Your task to perform on an android device: open app "Microsoft Excel" (install if not already installed) Image 0: 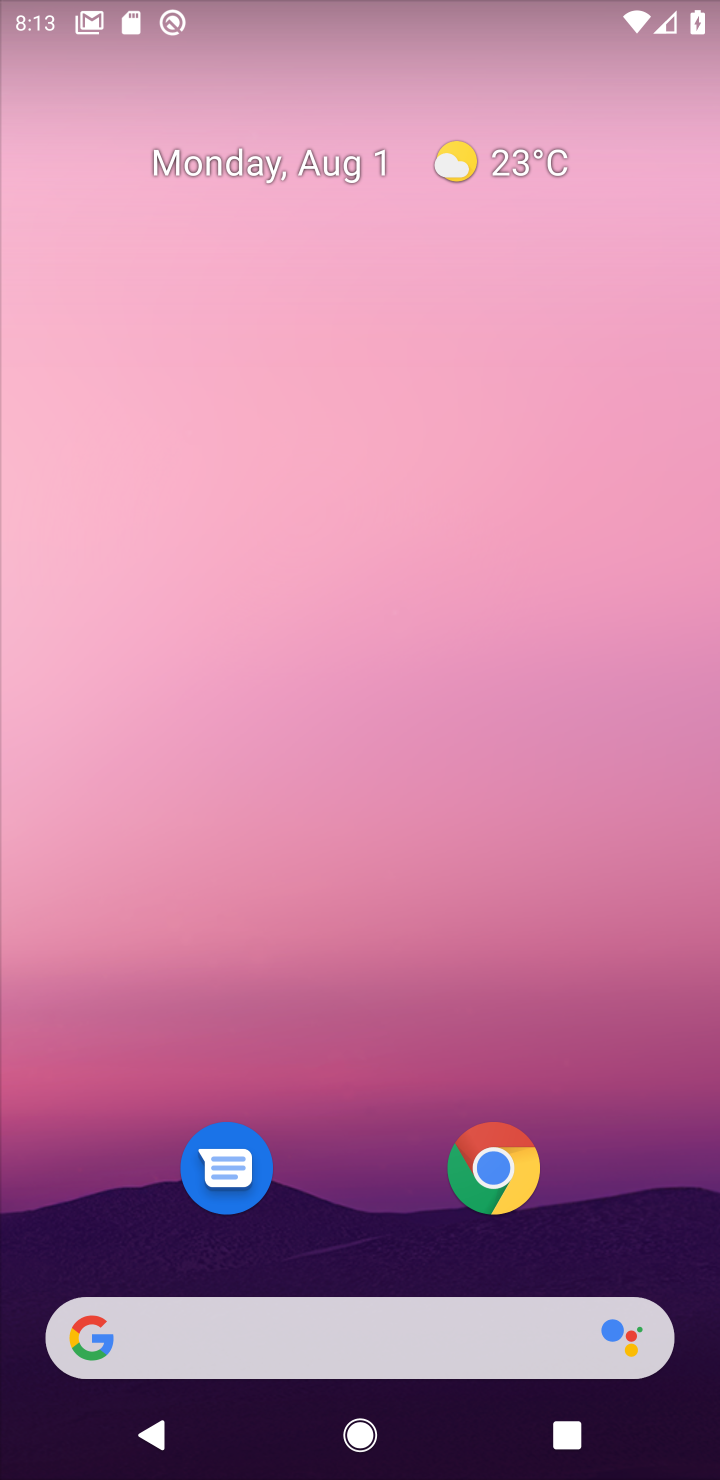
Step 0: drag from (361, 913) to (486, 129)
Your task to perform on an android device: open app "Microsoft Excel" (install if not already installed) Image 1: 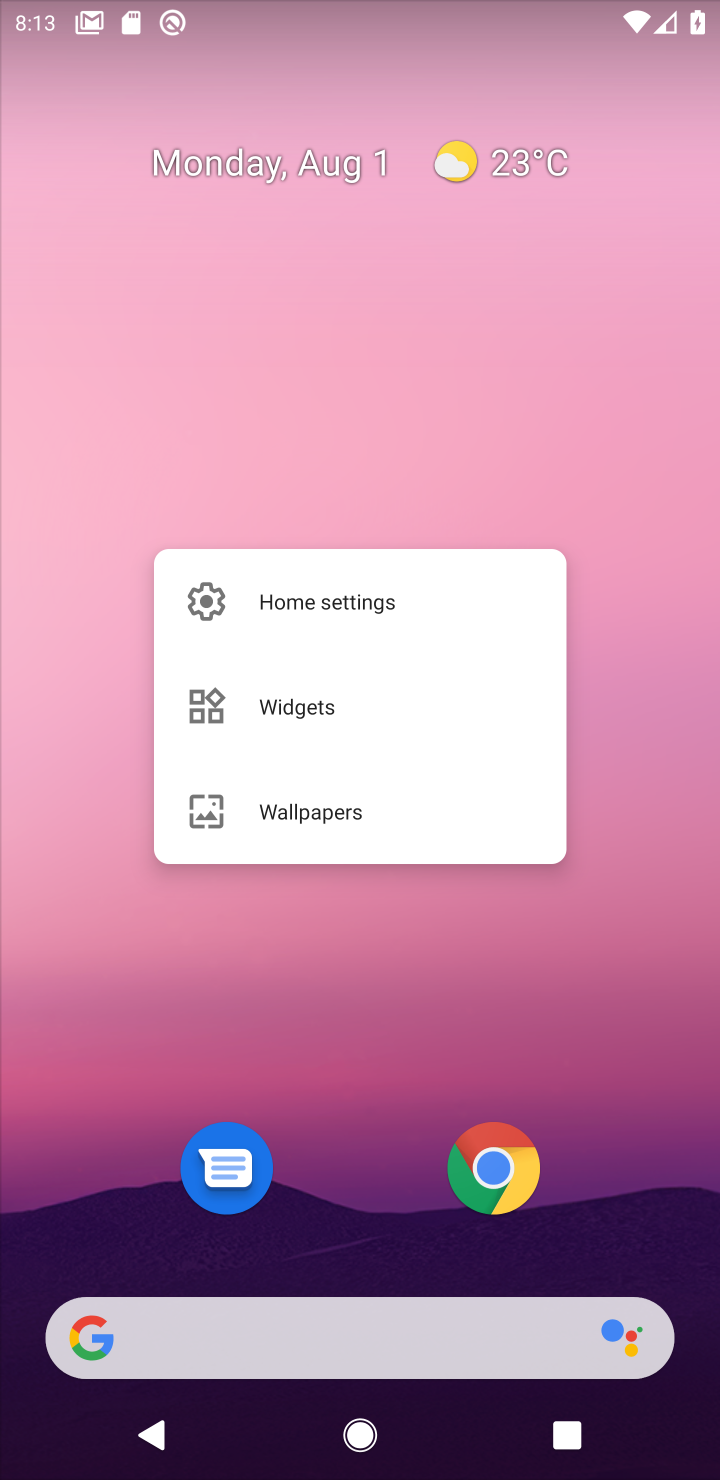
Step 1: drag from (397, 1108) to (679, 827)
Your task to perform on an android device: open app "Microsoft Excel" (install if not already installed) Image 2: 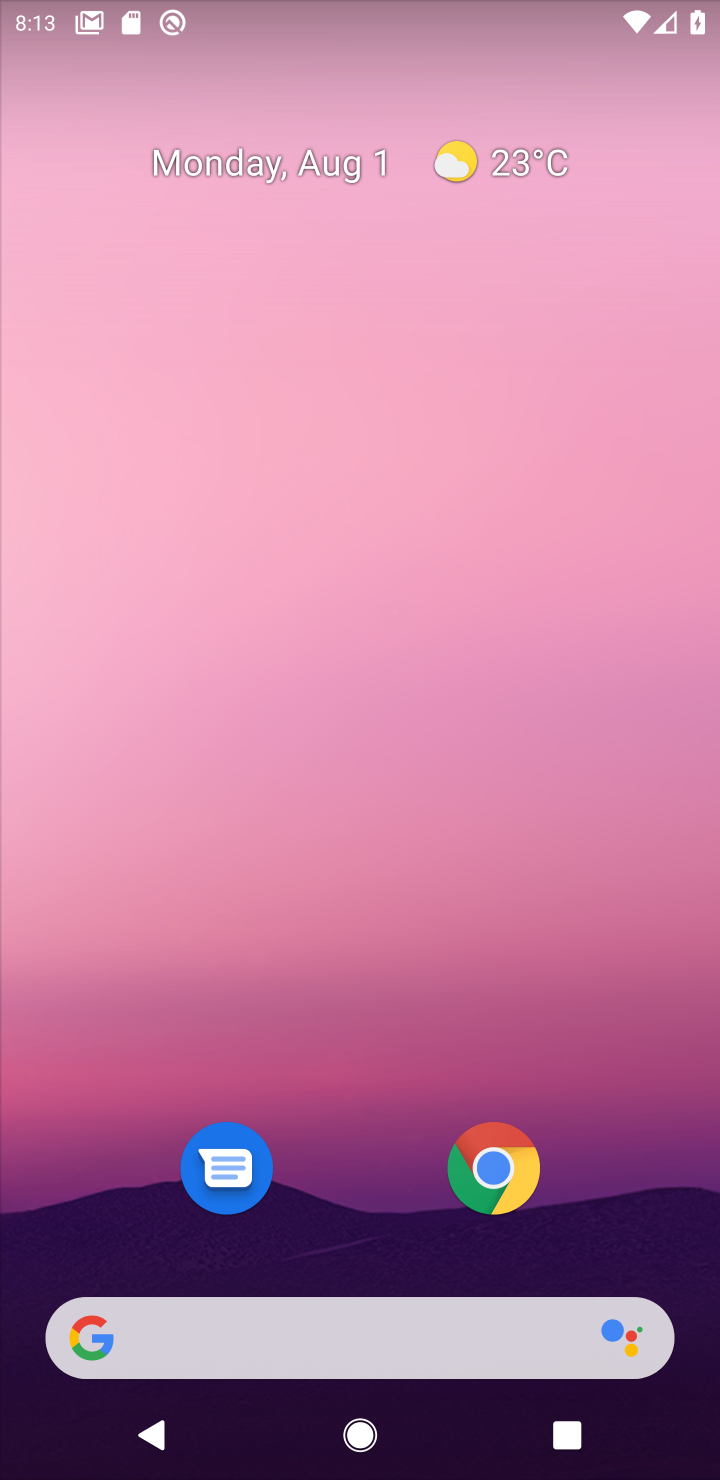
Step 2: drag from (418, 1030) to (436, 189)
Your task to perform on an android device: open app "Microsoft Excel" (install if not already installed) Image 3: 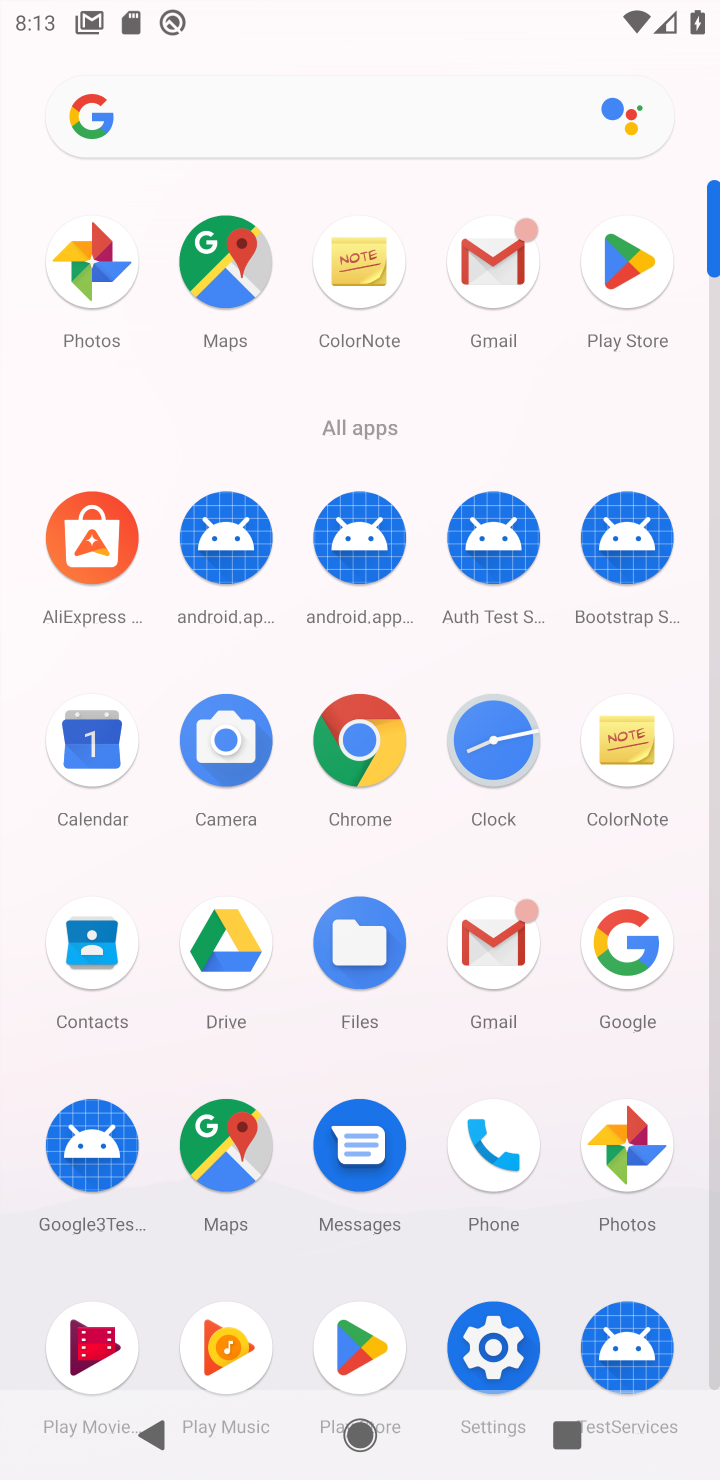
Step 3: click (630, 282)
Your task to perform on an android device: open app "Microsoft Excel" (install if not already installed) Image 4: 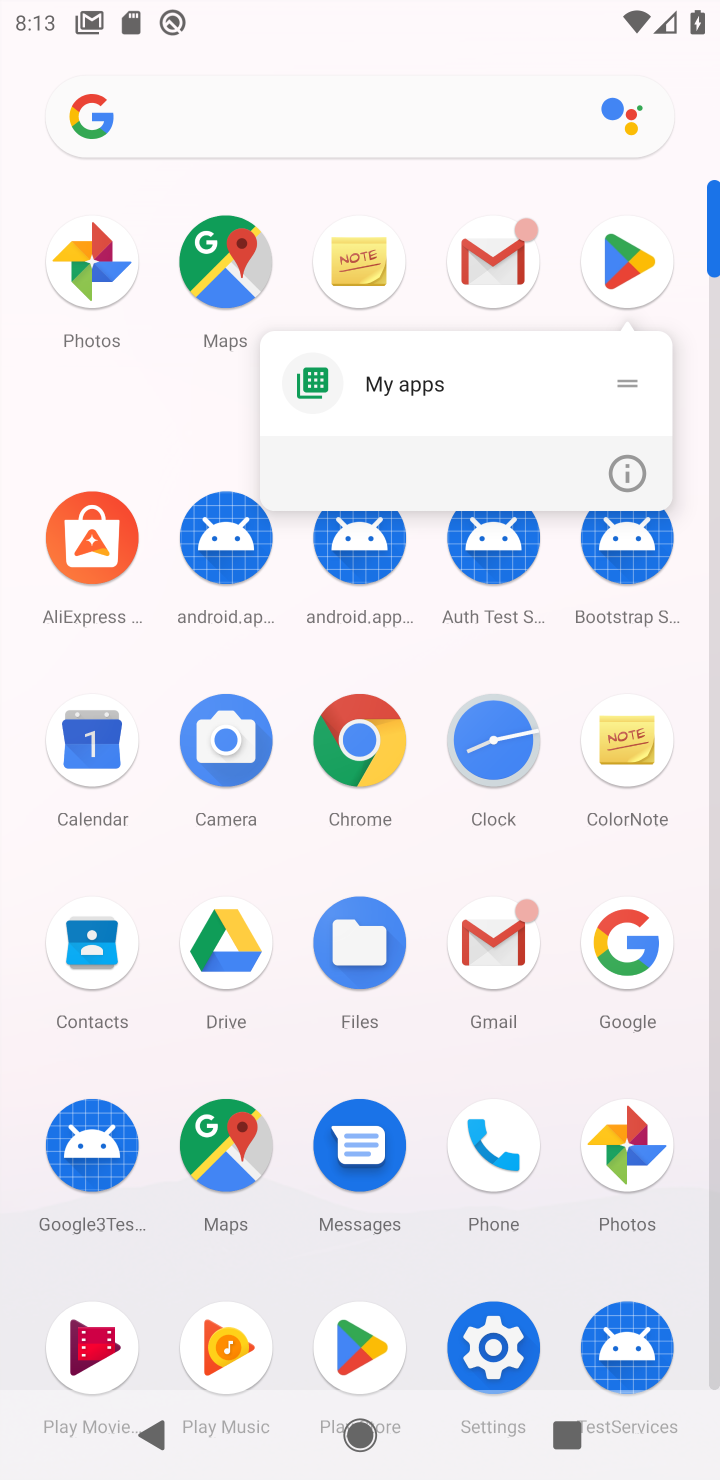
Step 4: click (627, 264)
Your task to perform on an android device: open app "Microsoft Excel" (install if not already installed) Image 5: 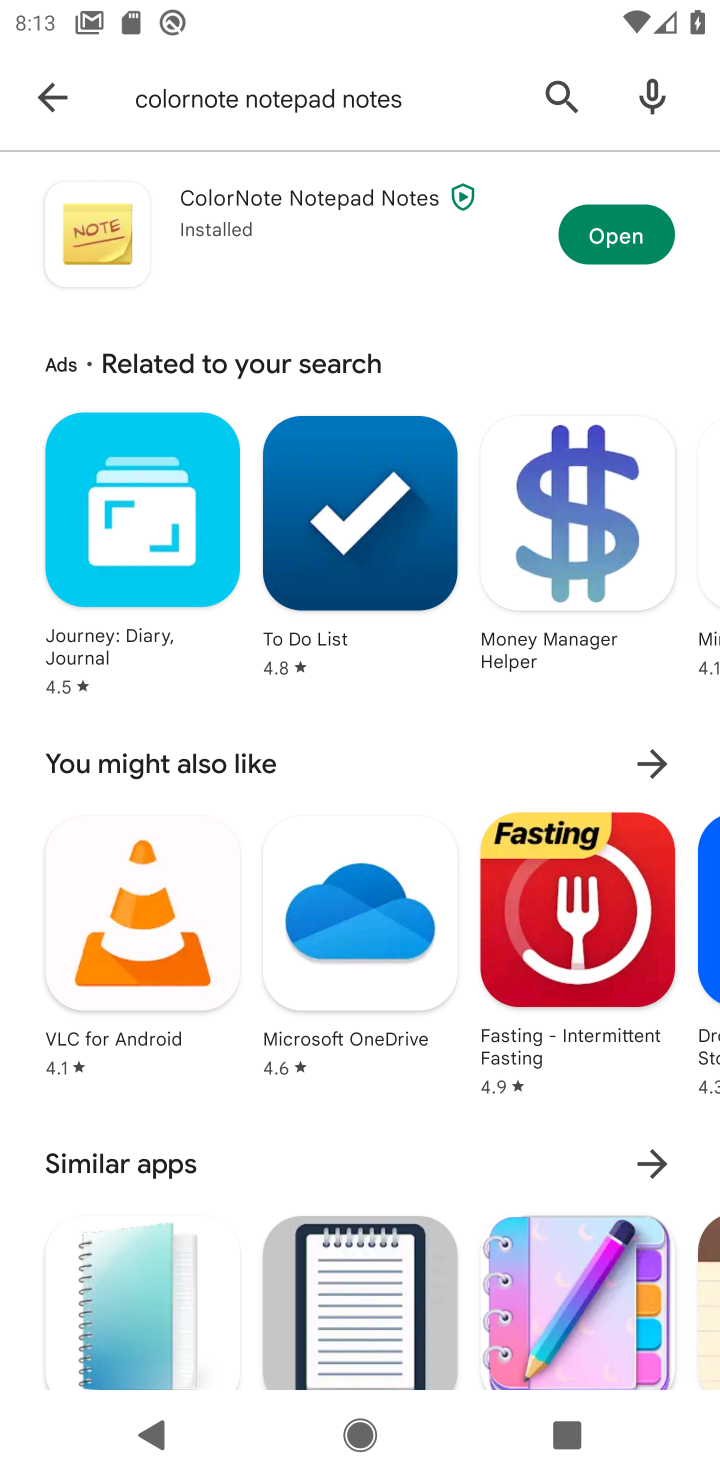
Step 5: click (272, 103)
Your task to perform on an android device: open app "Microsoft Excel" (install if not already installed) Image 6: 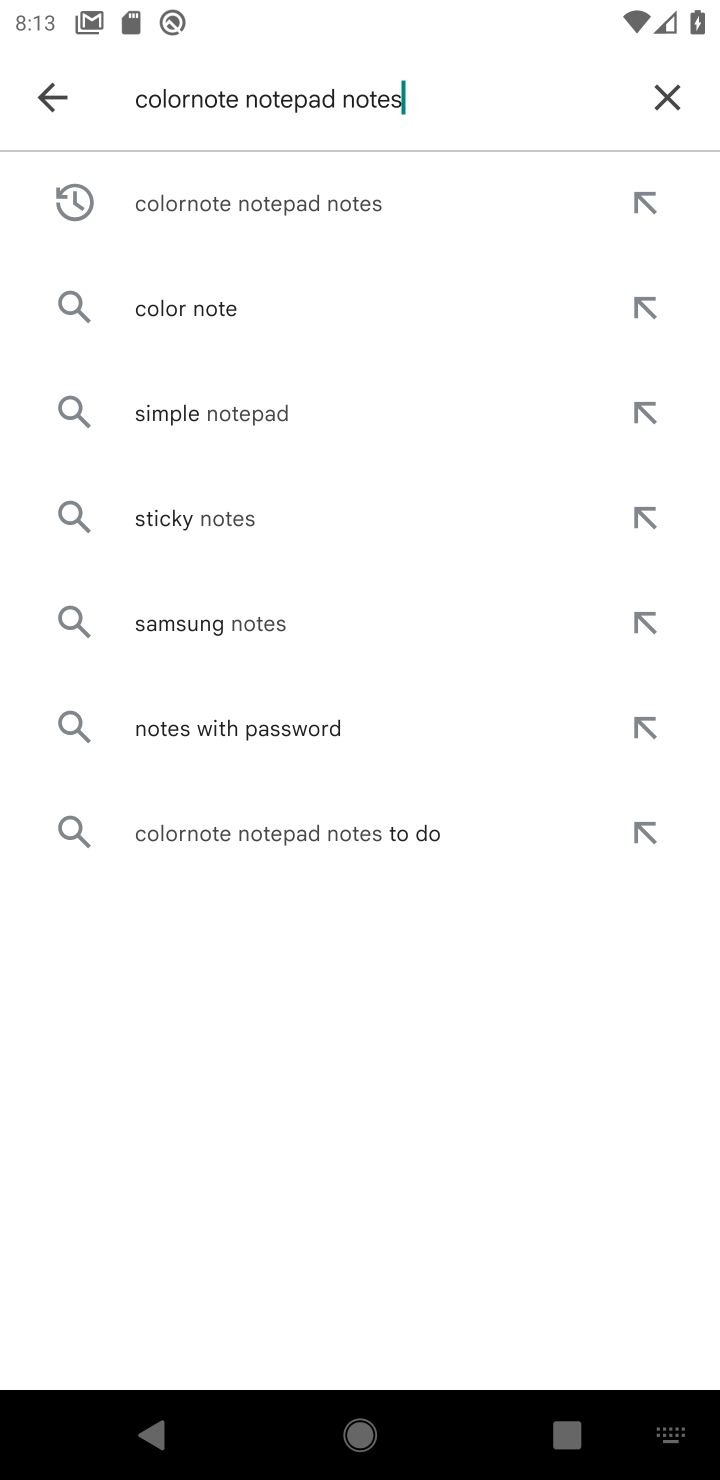
Step 6: click (664, 102)
Your task to perform on an android device: open app "Microsoft Excel" (install if not already installed) Image 7: 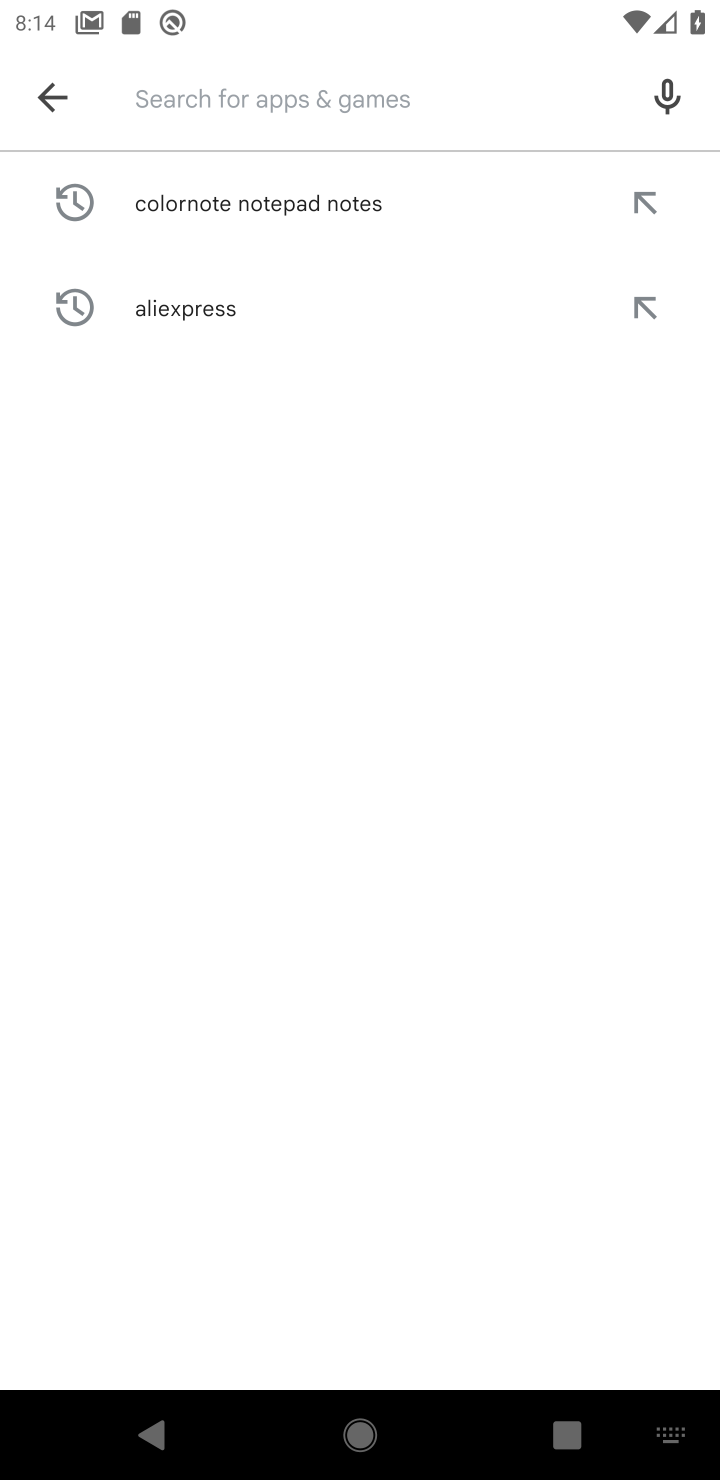
Step 7: type "microsoft excel"
Your task to perform on an android device: open app "Microsoft Excel" (install if not already installed) Image 8: 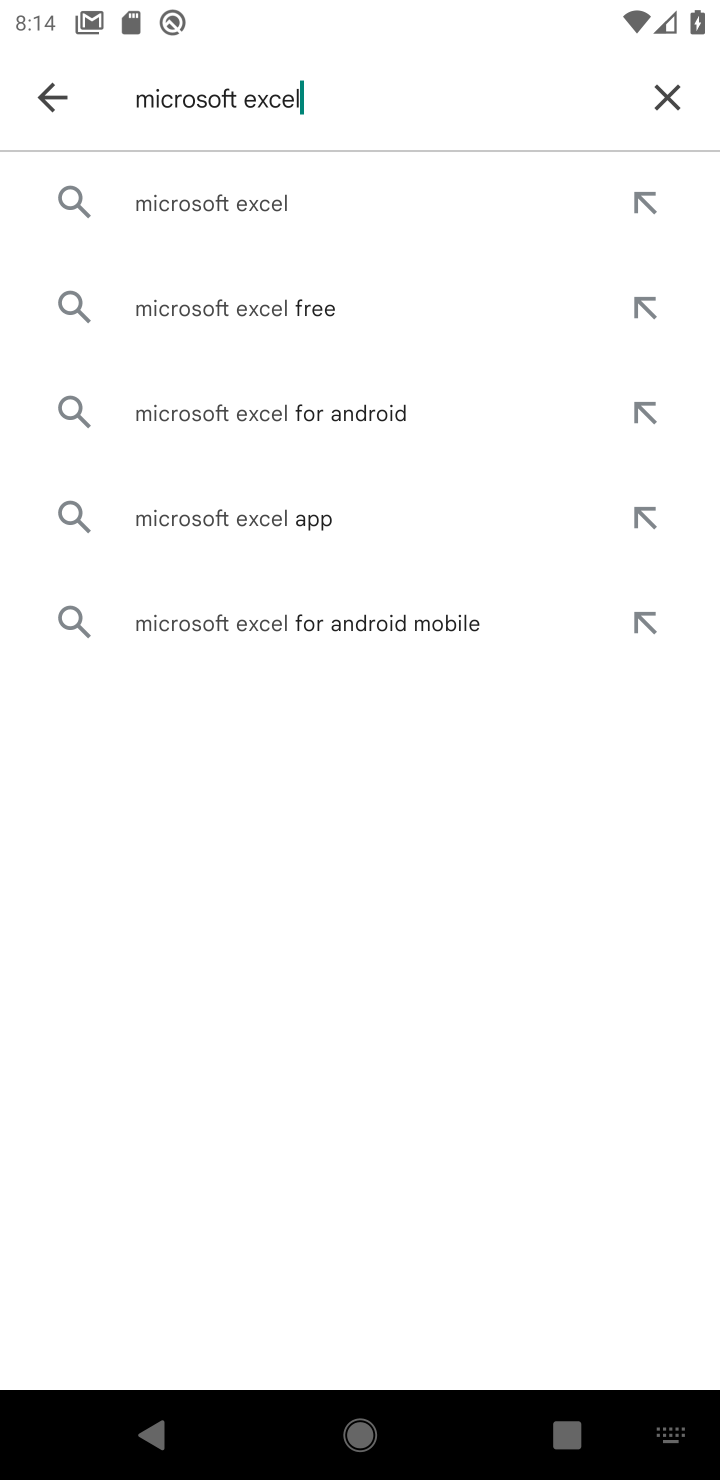
Step 8: click (239, 197)
Your task to perform on an android device: open app "Microsoft Excel" (install if not already installed) Image 9: 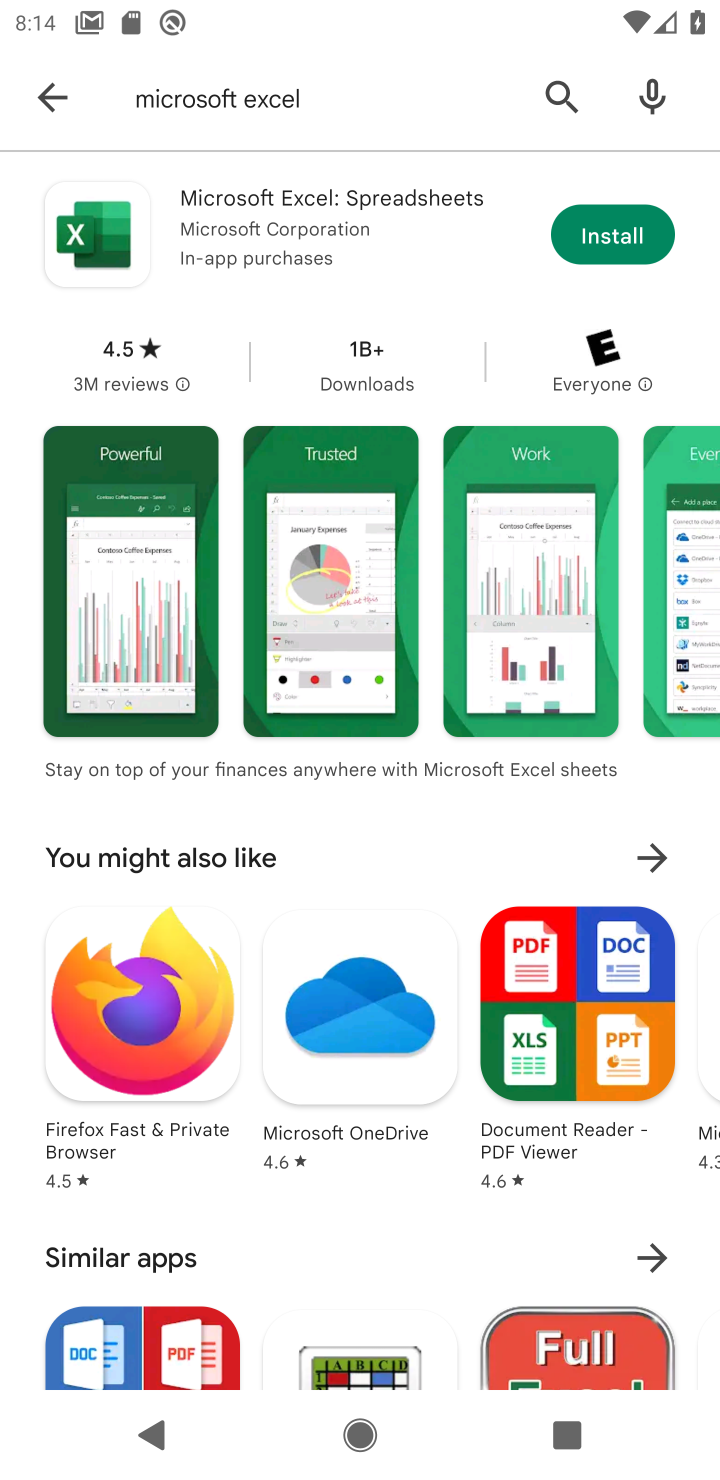
Step 9: click (648, 232)
Your task to perform on an android device: open app "Microsoft Excel" (install if not already installed) Image 10: 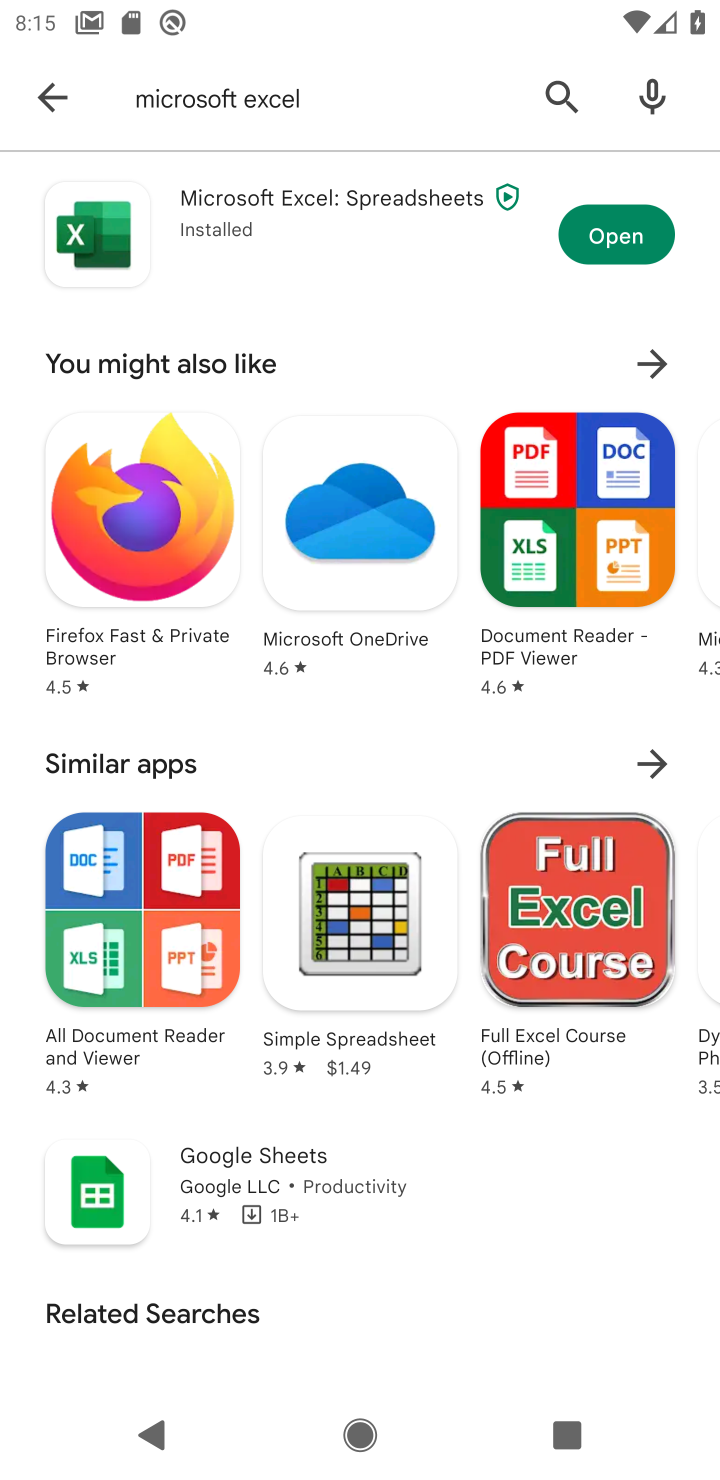
Step 10: click (626, 243)
Your task to perform on an android device: open app "Microsoft Excel" (install if not already installed) Image 11: 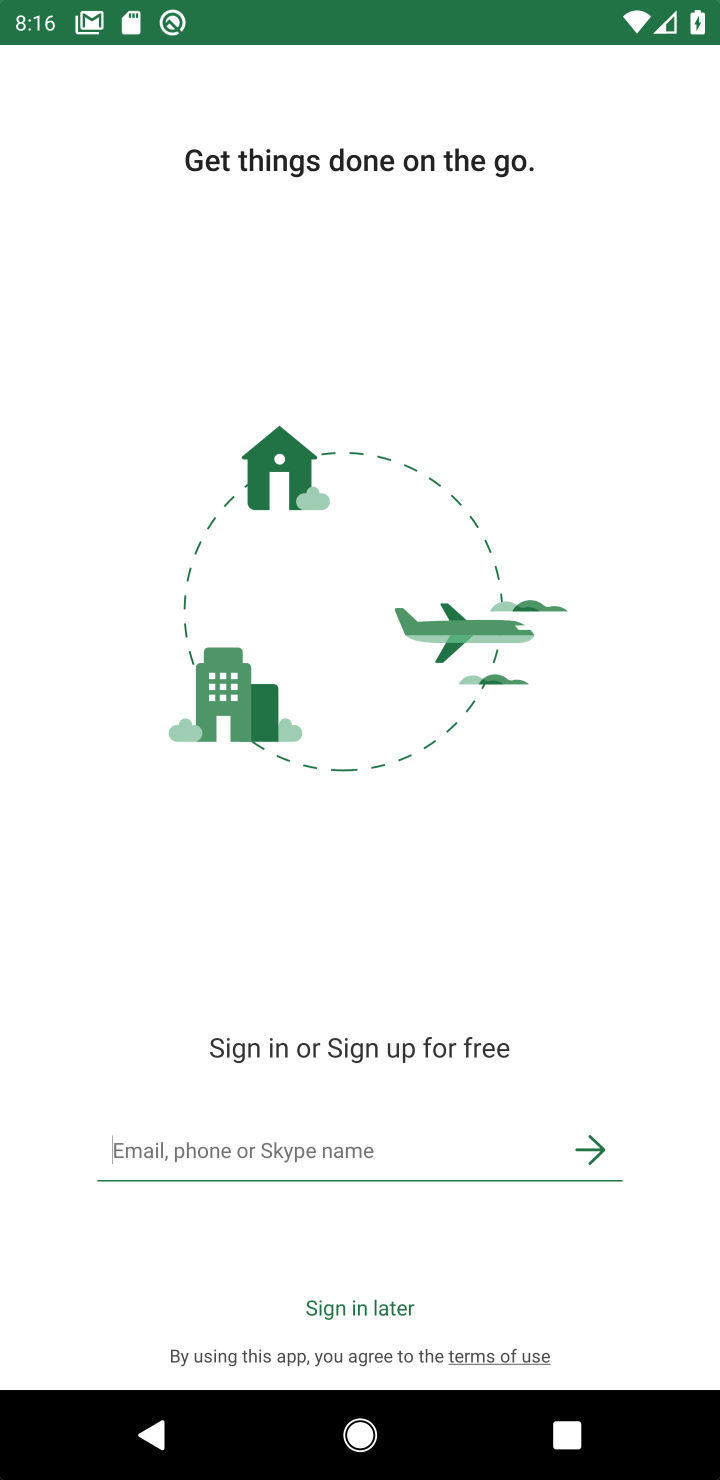
Step 11: click (314, 1310)
Your task to perform on an android device: open app "Microsoft Excel" (install if not already installed) Image 12: 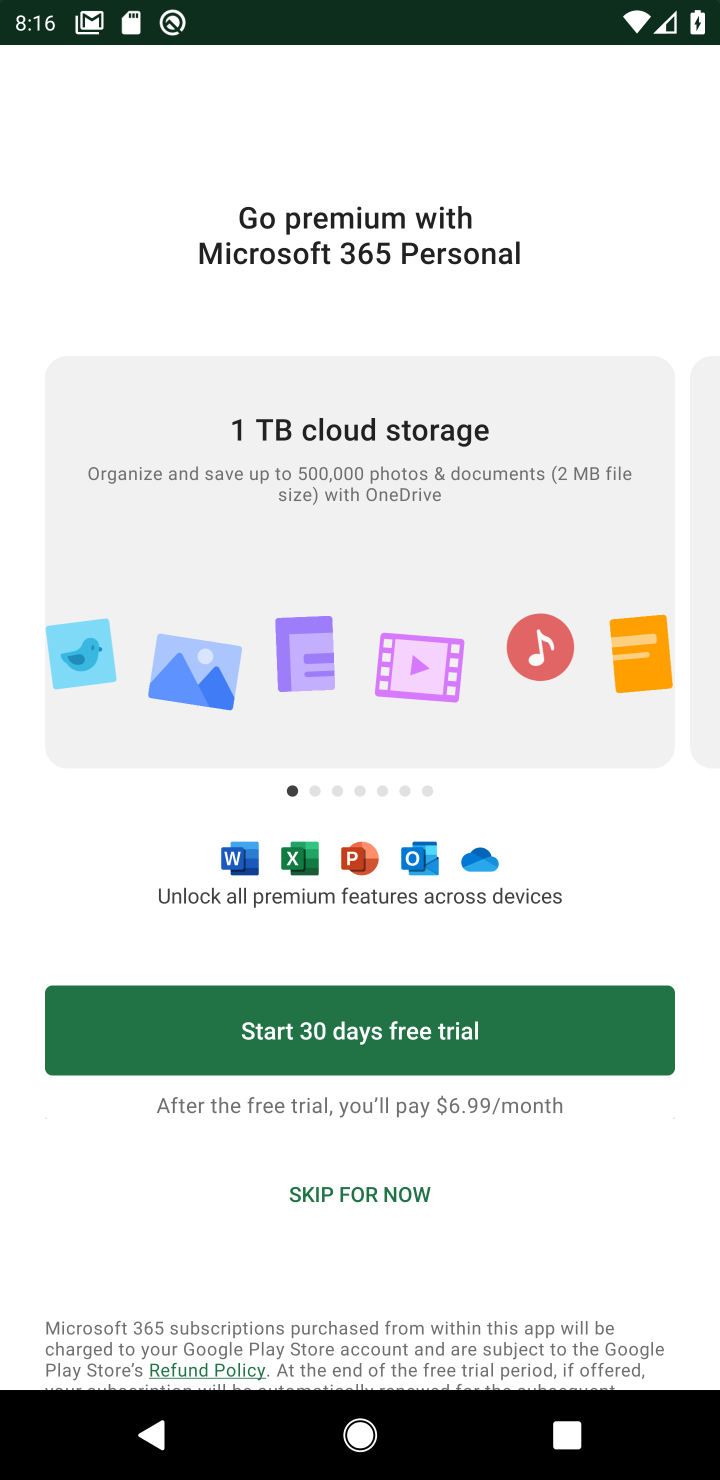
Step 12: click (371, 1203)
Your task to perform on an android device: open app "Microsoft Excel" (install if not already installed) Image 13: 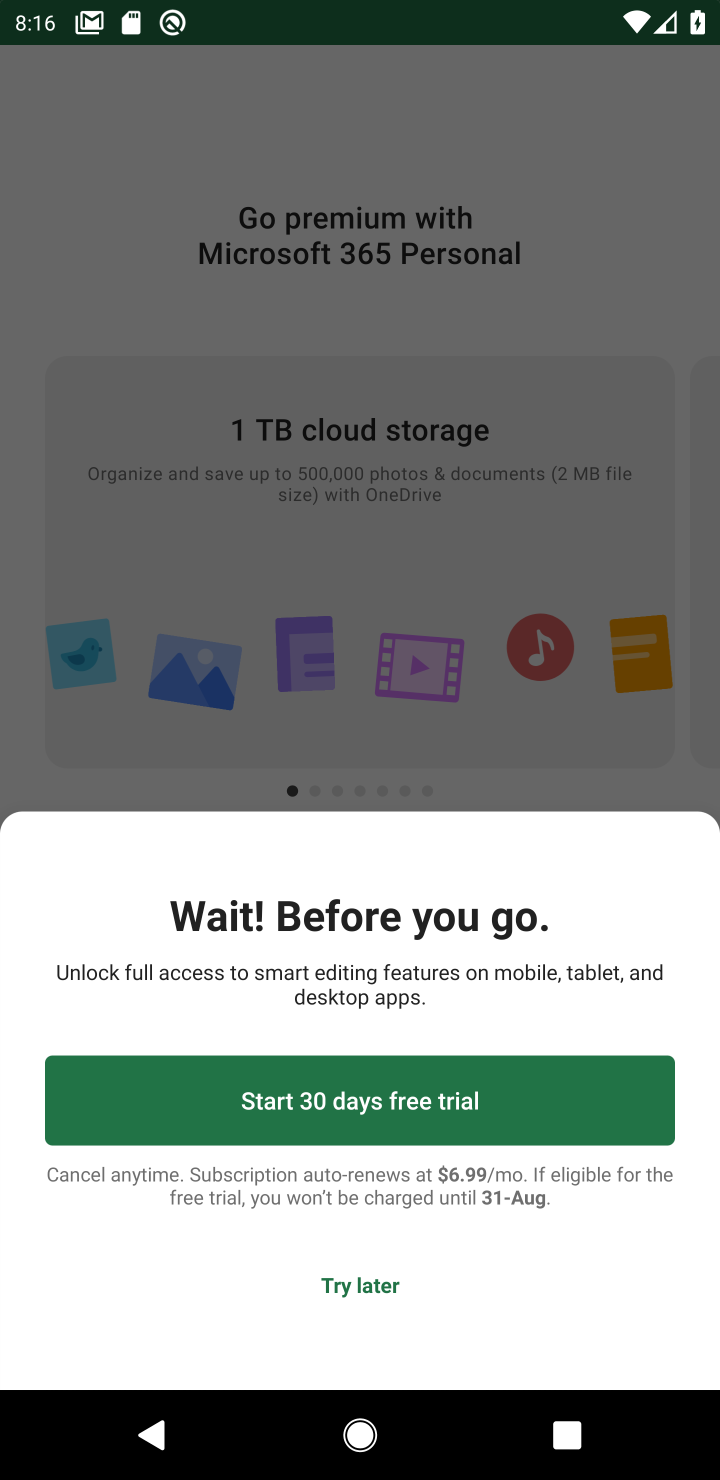
Step 13: click (376, 1287)
Your task to perform on an android device: open app "Microsoft Excel" (install if not already installed) Image 14: 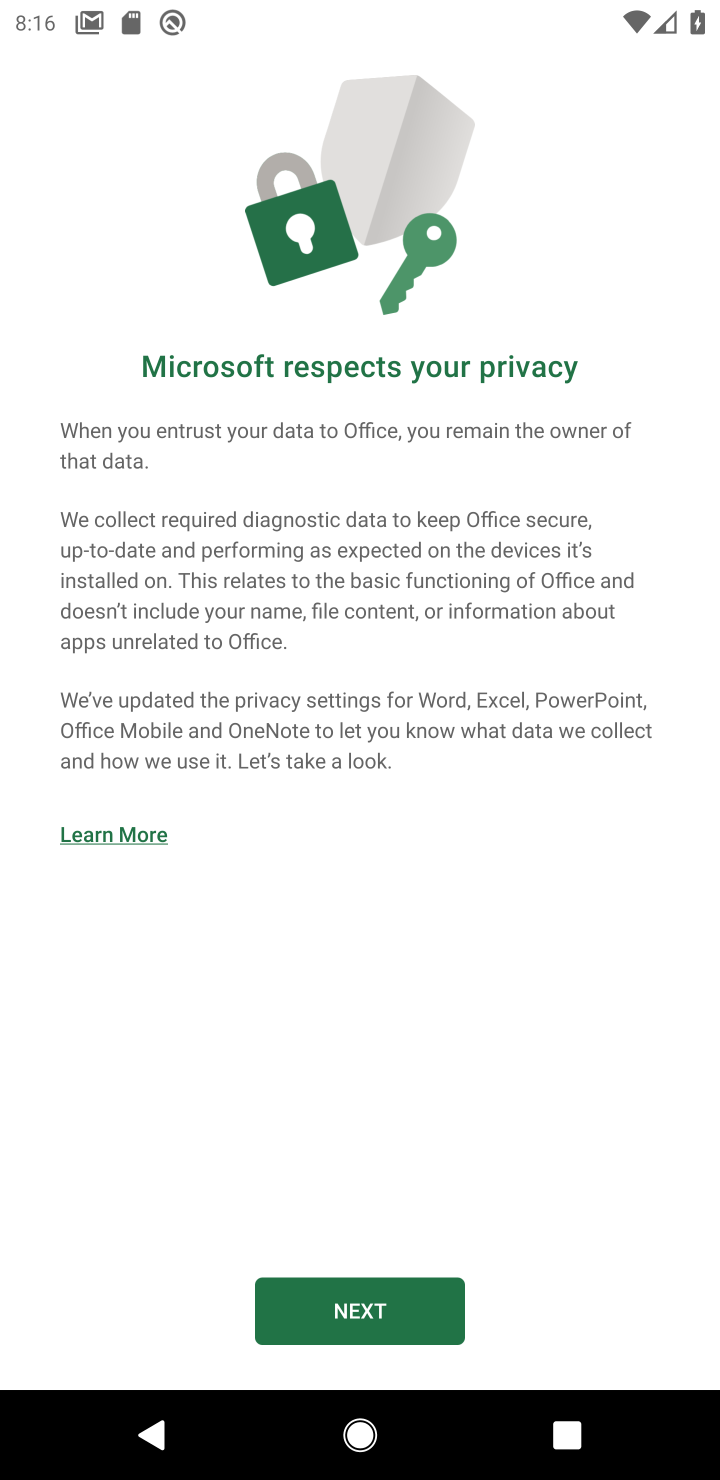
Step 14: click (398, 1300)
Your task to perform on an android device: open app "Microsoft Excel" (install if not already installed) Image 15: 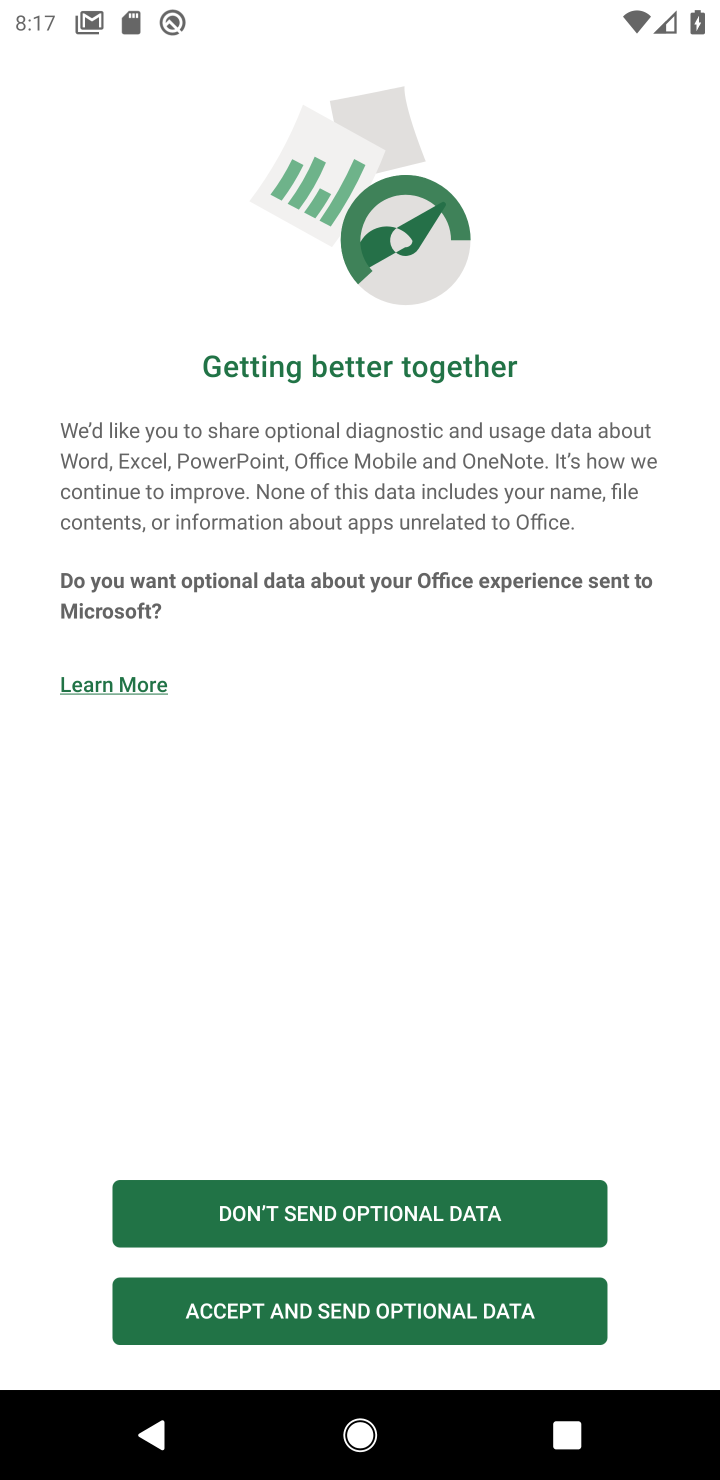
Step 15: task complete